Your task to perform on an android device: Open Yahoo.com Image 0: 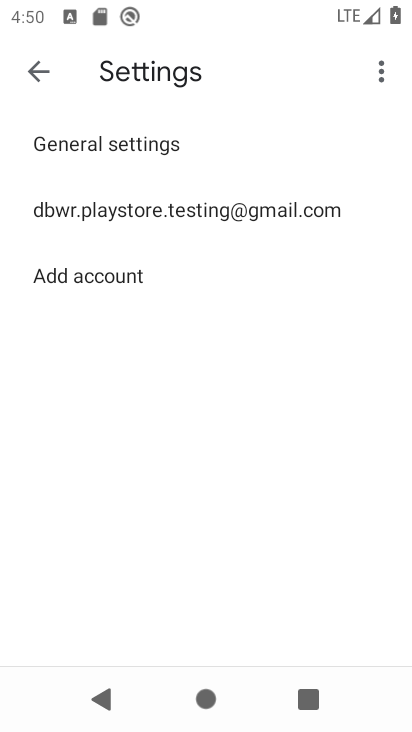
Step 0: press home button
Your task to perform on an android device: Open Yahoo.com Image 1: 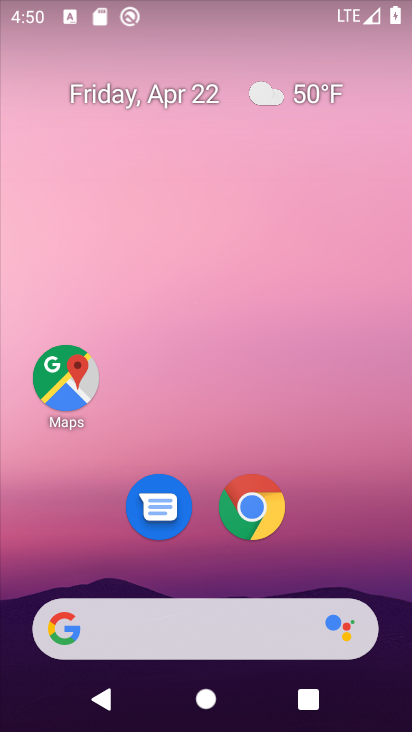
Step 1: click (251, 511)
Your task to perform on an android device: Open Yahoo.com Image 2: 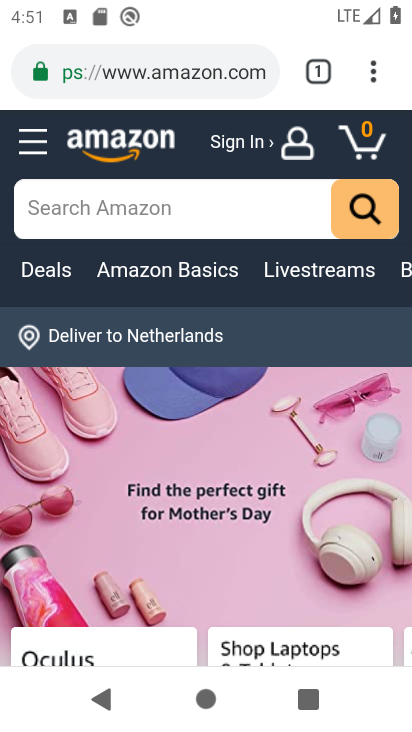
Step 2: click (148, 75)
Your task to perform on an android device: Open Yahoo.com Image 3: 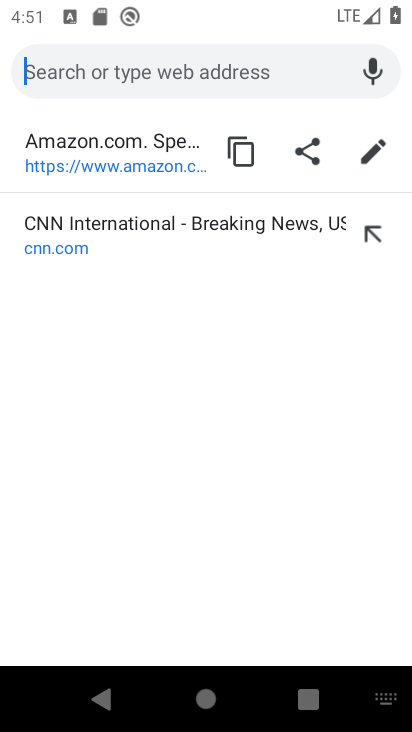
Step 3: type "yahoo.com"
Your task to perform on an android device: Open Yahoo.com Image 4: 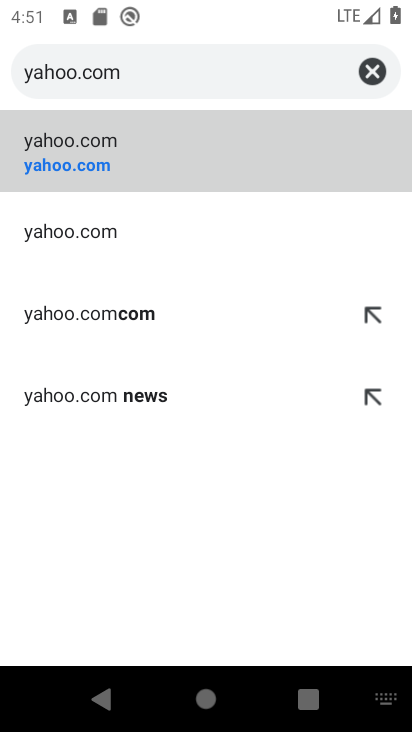
Step 4: click (82, 134)
Your task to perform on an android device: Open Yahoo.com Image 5: 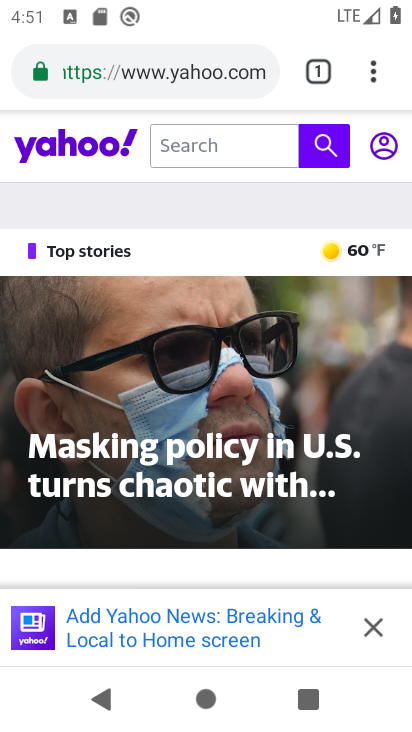
Step 5: task complete